Your task to perform on an android device: change text size in settings app Image 0: 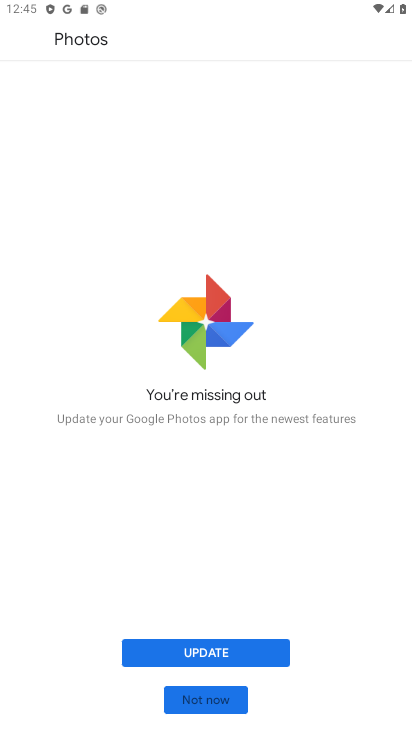
Step 0: click (228, 693)
Your task to perform on an android device: change text size in settings app Image 1: 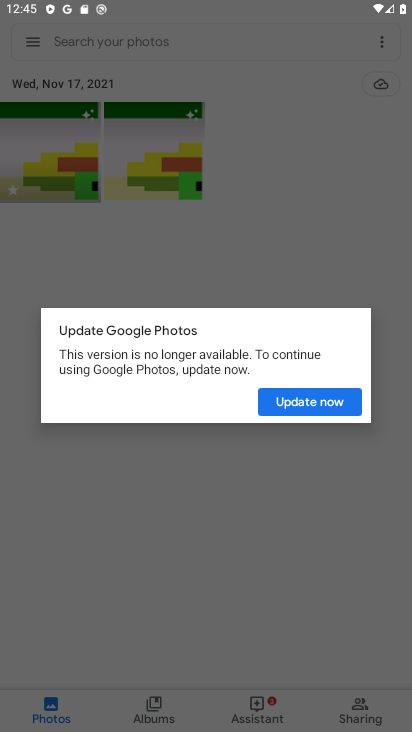
Step 1: press home button
Your task to perform on an android device: change text size in settings app Image 2: 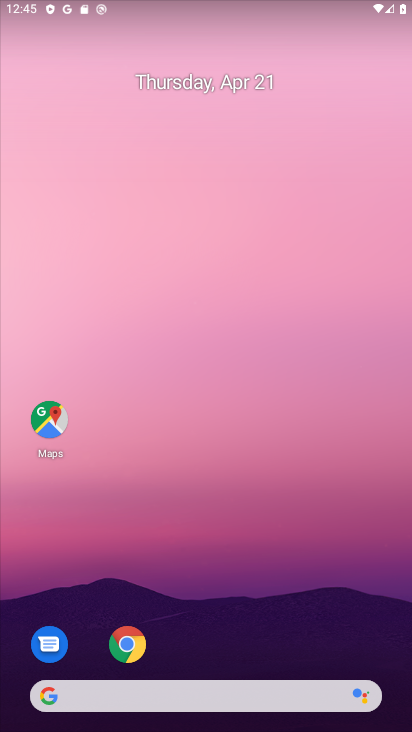
Step 2: drag from (235, 643) to (235, 204)
Your task to perform on an android device: change text size in settings app Image 3: 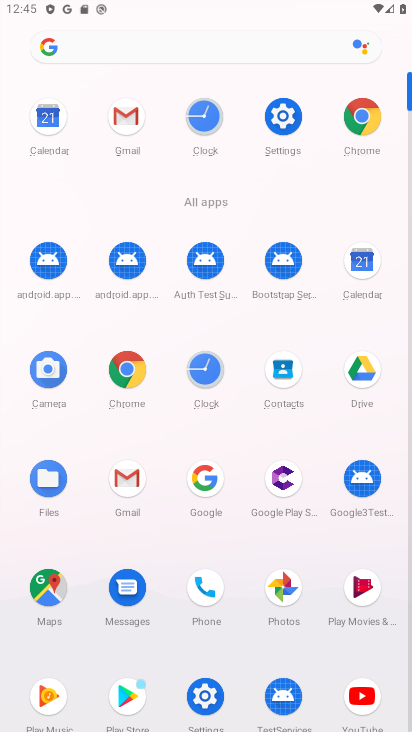
Step 3: click (285, 113)
Your task to perform on an android device: change text size in settings app Image 4: 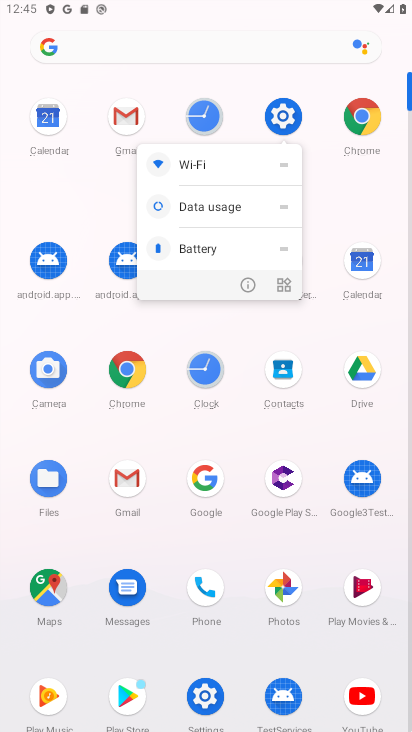
Step 4: click (285, 113)
Your task to perform on an android device: change text size in settings app Image 5: 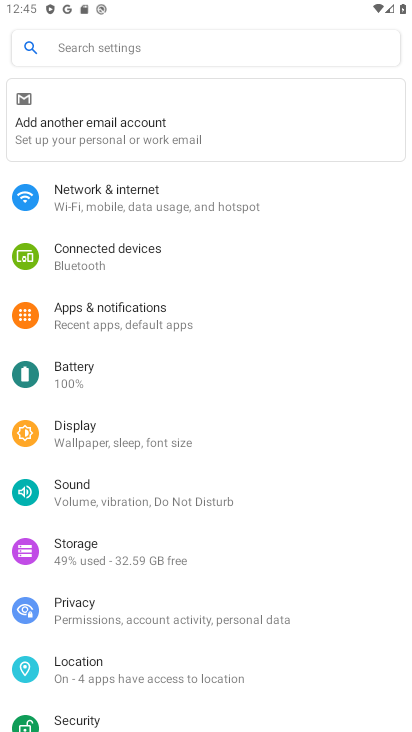
Step 5: click (232, 441)
Your task to perform on an android device: change text size in settings app Image 6: 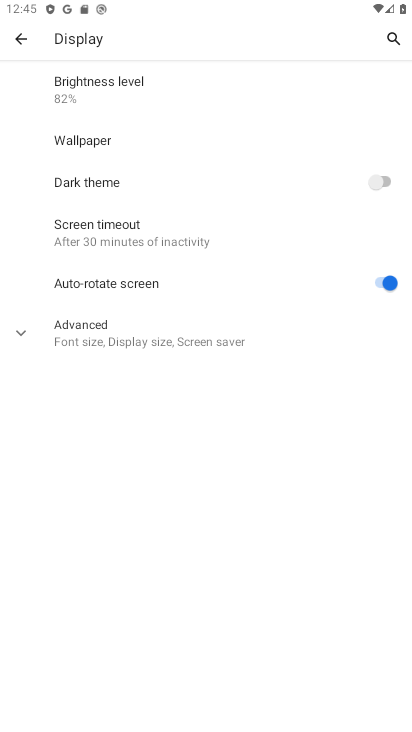
Step 6: click (240, 331)
Your task to perform on an android device: change text size in settings app Image 7: 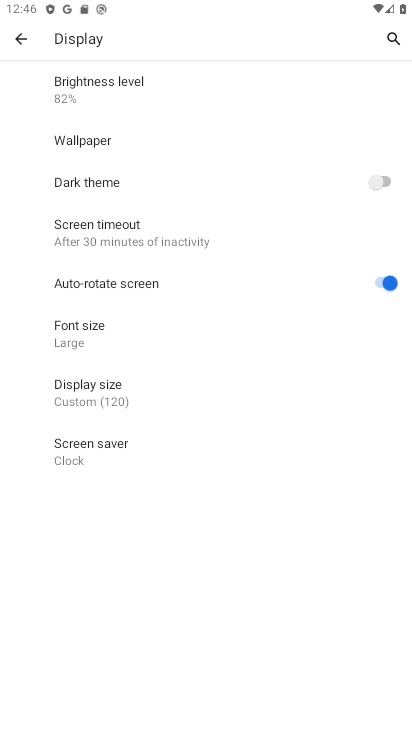
Step 7: click (226, 342)
Your task to perform on an android device: change text size in settings app Image 8: 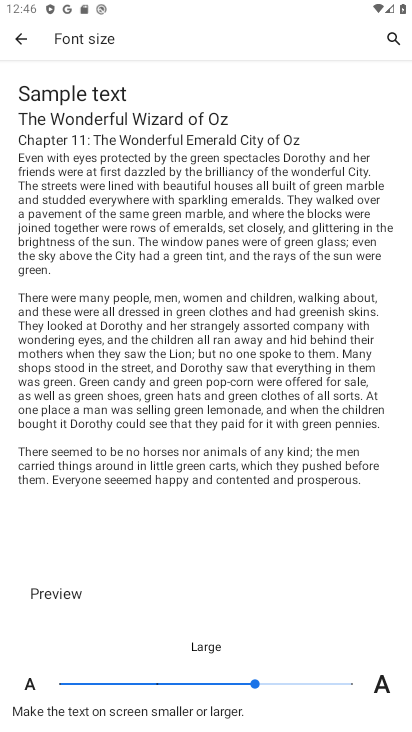
Step 8: click (209, 682)
Your task to perform on an android device: change text size in settings app Image 9: 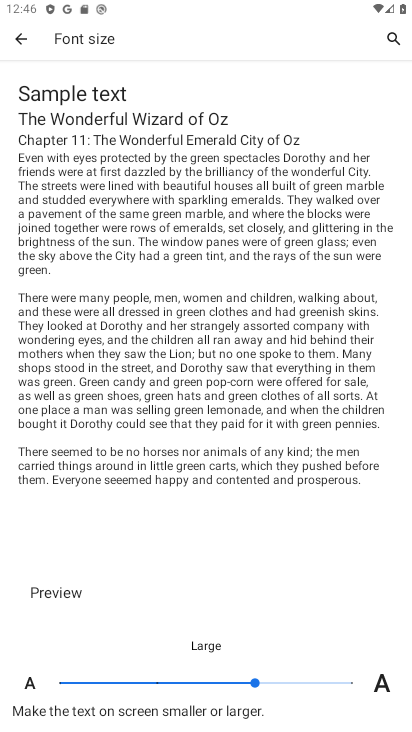
Step 9: click (189, 682)
Your task to perform on an android device: change text size in settings app Image 10: 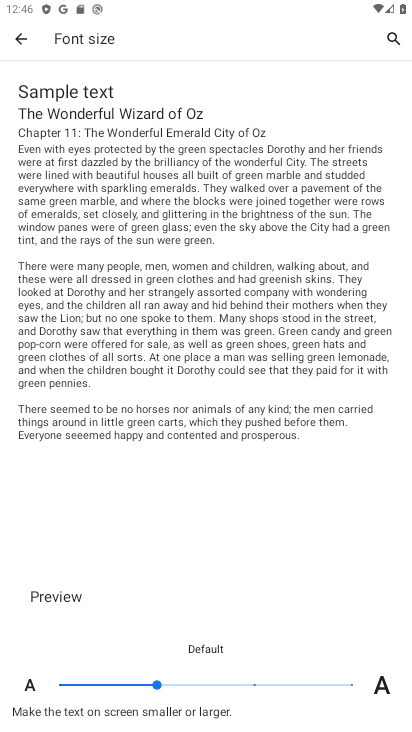
Step 10: task complete